Your task to perform on an android device: Open Google Chrome and click the shortcut for Amazon.com Image 0: 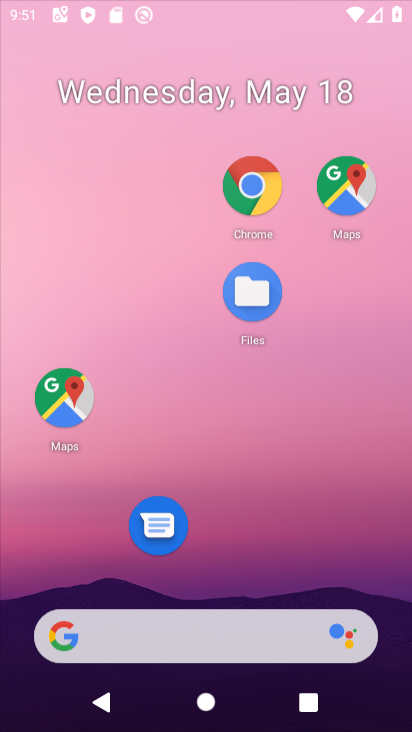
Step 0: drag from (332, 535) to (262, 68)
Your task to perform on an android device: Open Google Chrome and click the shortcut for Amazon.com Image 1: 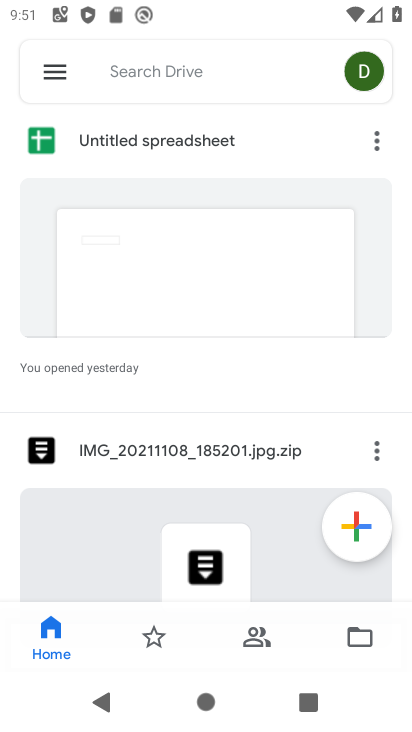
Step 1: press home button
Your task to perform on an android device: Open Google Chrome and click the shortcut for Amazon.com Image 2: 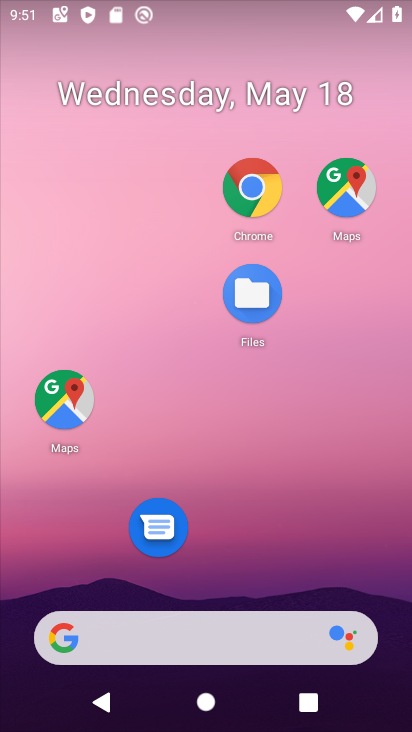
Step 2: drag from (312, 561) to (276, 127)
Your task to perform on an android device: Open Google Chrome and click the shortcut for Amazon.com Image 3: 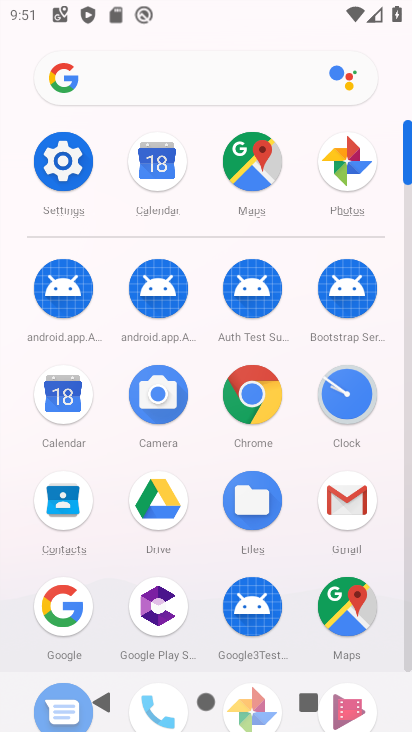
Step 3: click (258, 391)
Your task to perform on an android device: Open Google Chrome and click the shortcut for Amazon.com Image 4: 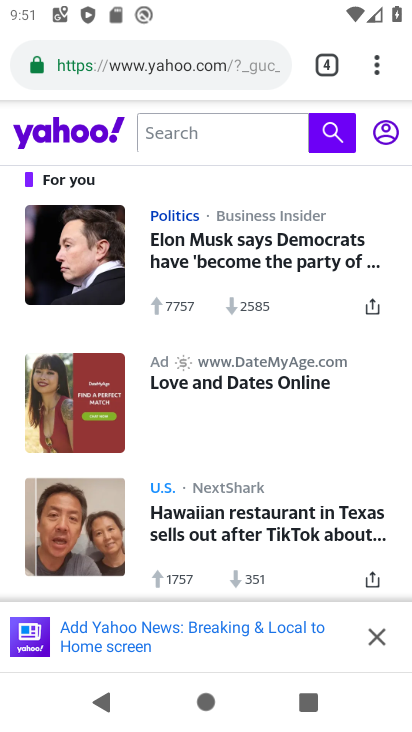
Step 4: click (329, 59)
Your task to perform on an android device: Open Google Chrome and click the shortcut for Amazon.com Image 5: 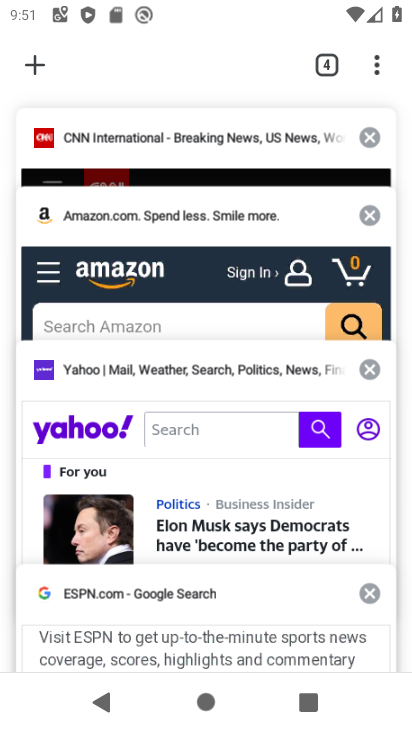
Step 5: click (152, 265)
Your task to perform on an android device: Open Google Chrome and click the shortcut for Amazon.com Image 6: 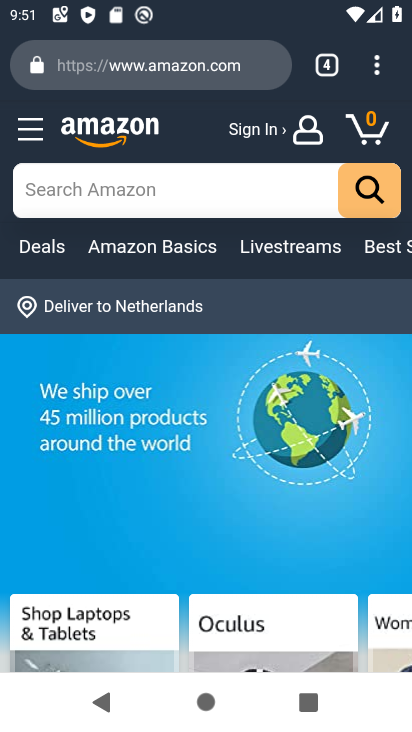
Step 6: task complete